Your task to perform on an android device: Open Yahoo.com Image 0: 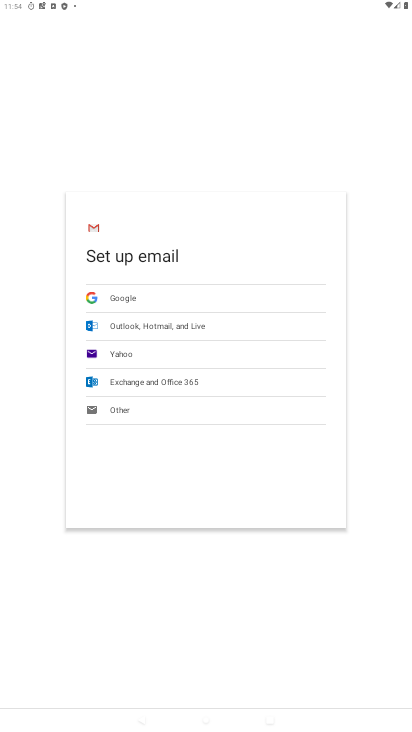
Step 0: press home button
Your task to perform on an android device: Open Yahoo.com Image 1: 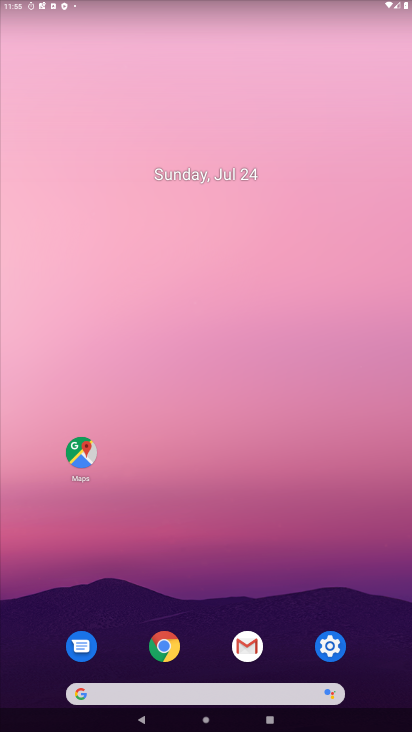
Step 1: click (151, 636)
Your task to perform on an android device: Open Yahoo.com Image 2: 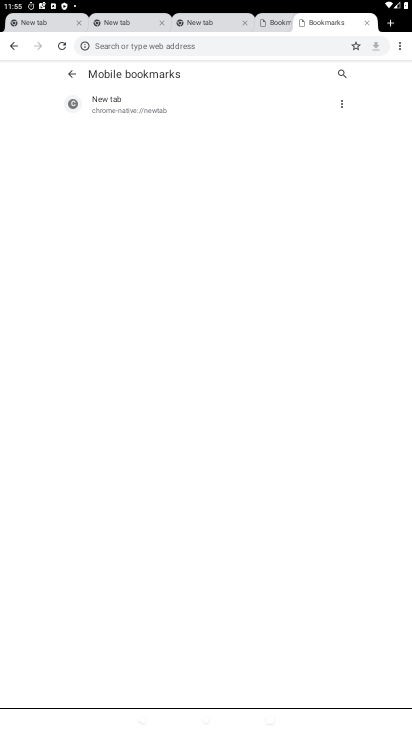
Step 2: click (389, 26)
Your task to perform on an android device: Open Yahoo.com Image 3: 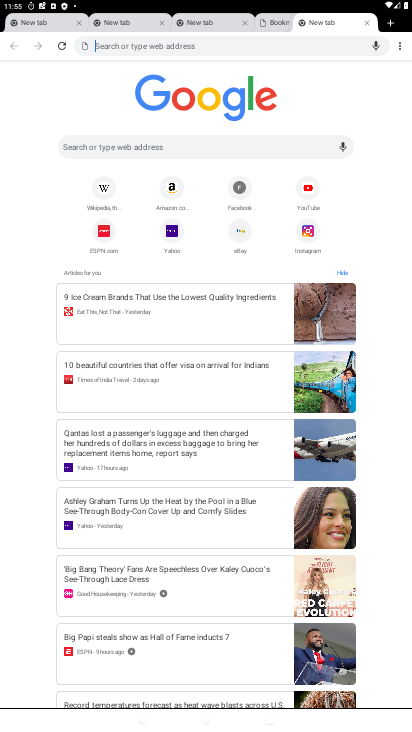
Step 3: click (170, 232)
Your task to perform on an android device: Open Yahoo.com Image 4: 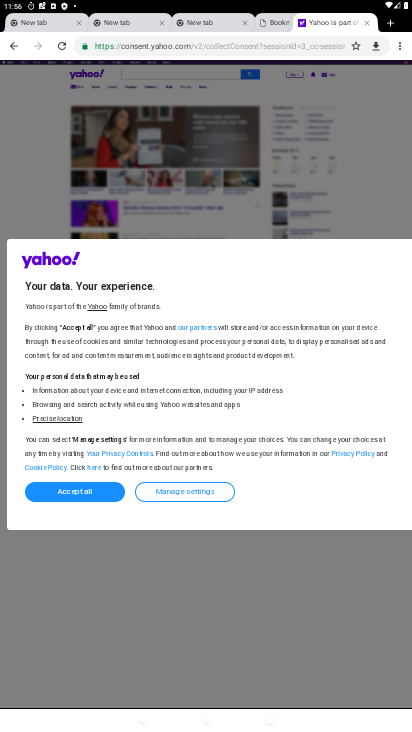
Step 4: click (52, 497)
Your task to perform on an android device: Open Yahoo.com Image 5: 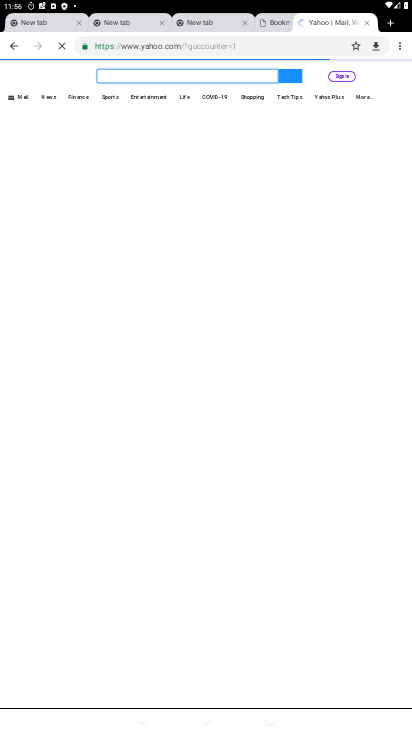
Step 5: task complete